Your task to perform on an android device: Open Android settings Image 0: 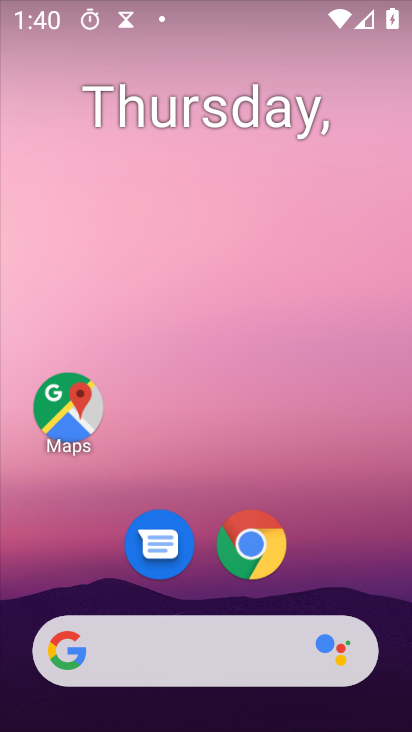
Step 0: drag from (210, 718) to (232, 200)
Your task to perform on an android device: Open Android settings Image 1: 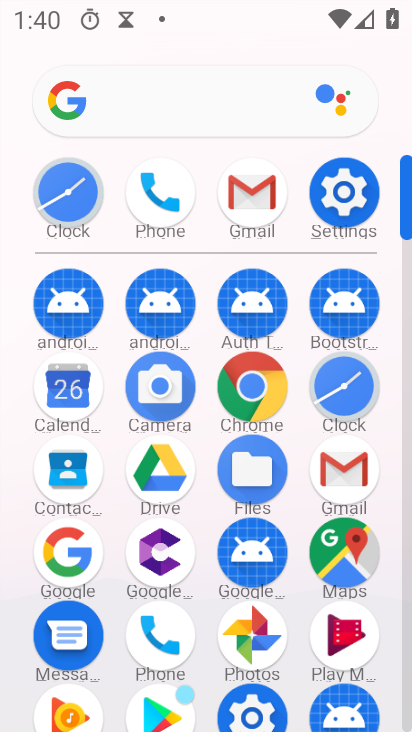
Step 1: click (334, 180)
Your task to perform on an android device: Open Android settings Image 2: 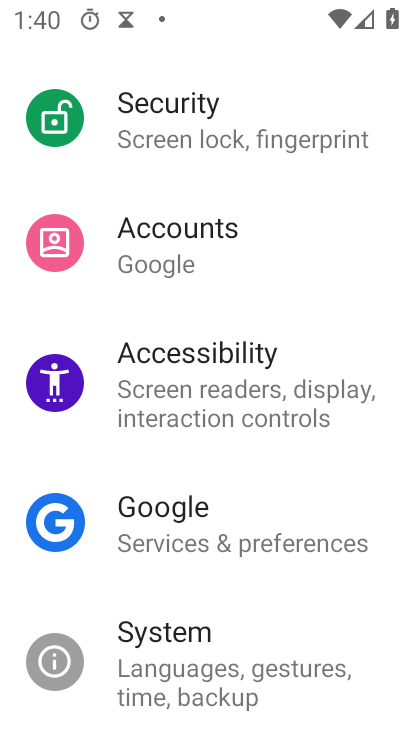
Step 2: drag from (293, 686) to (294, 286)
Your task to perform on an android device: Open Android settings Image 3: 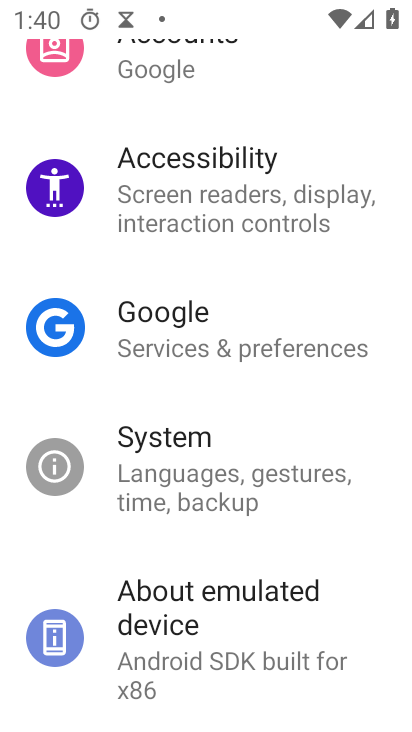
Step 3: click (196, 647)
Your task to perform on an android device: Open Android settings Image 4: 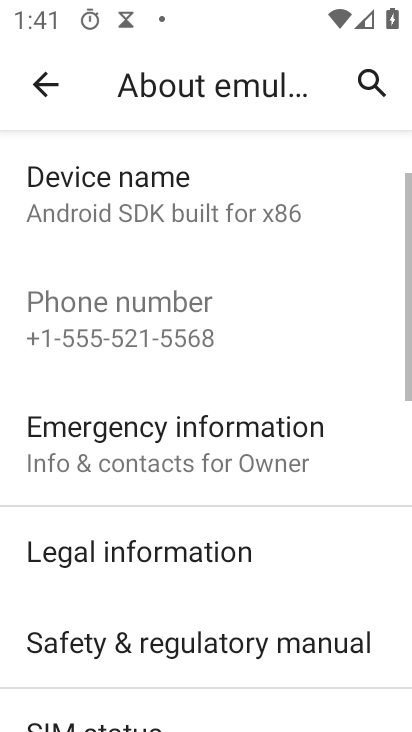
Step 4: drag from (172, 635) to (146, 267)
Your task to perform on an android device: Open Android settings Image 5: 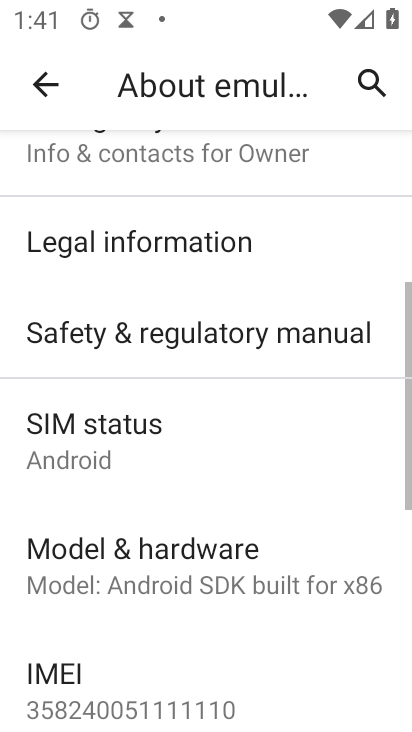
Step 5: drag from (112, 628) to (114, 591)
Your task to perform on an android device: Open Android settings Image 6: 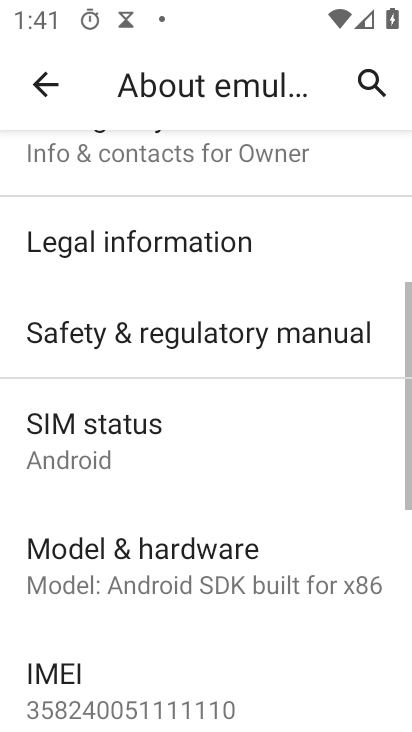
Step 6: click (116, 346)
Your task to perform on an android device: Open Android settings Image 7: 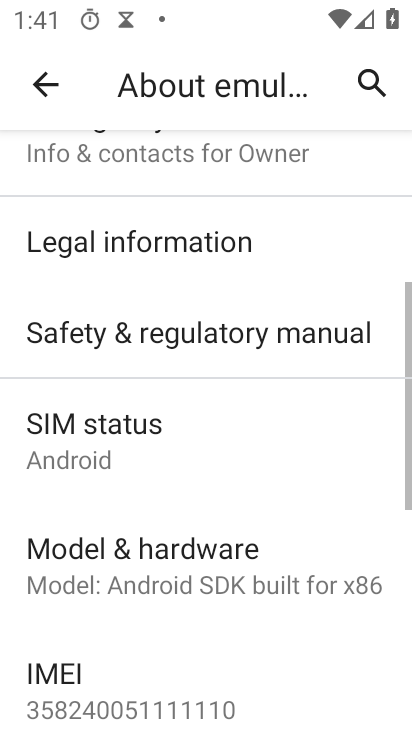
Step 7: drag from (201, 666) to (206, 562)
Your task to perform on an android device: Open Android settings Image 8: 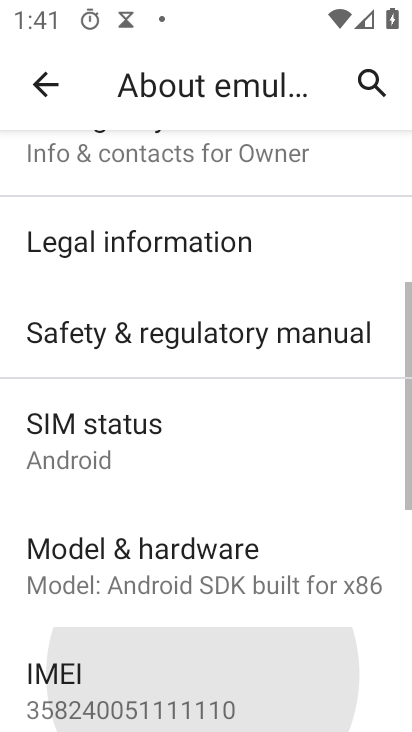
Step 8: drag from (207, 438) to (207, 121)
Your task to perform on an android device: Open Android settings Image 9: 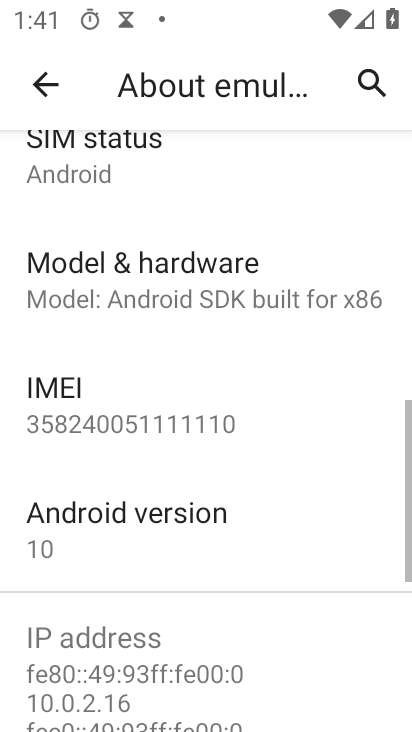
Step 9: click (110, 518)
Your task to perform on an android device: Open Android settings Image 10: 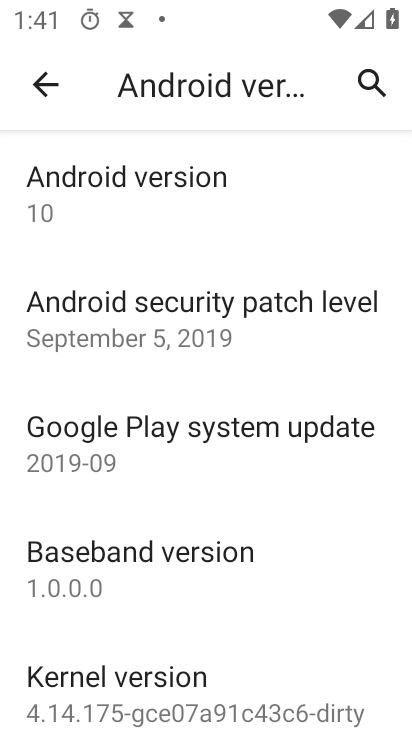
Step 10: task complete